Your task to perform on an android device: Open location settings Image 0: 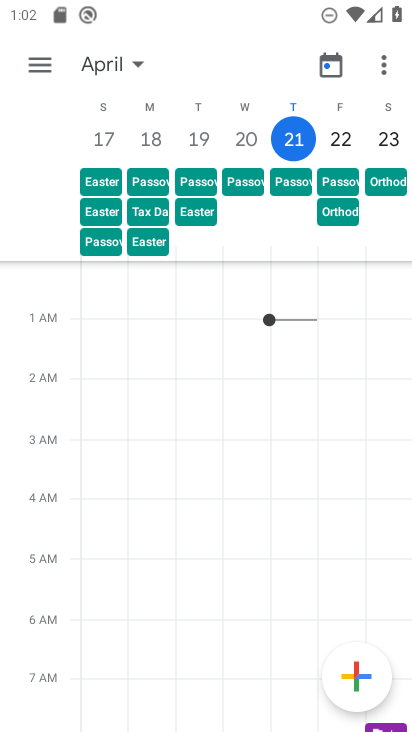
Step 0: press home button
Your task to perform on an android device: Open location settings Image 1: 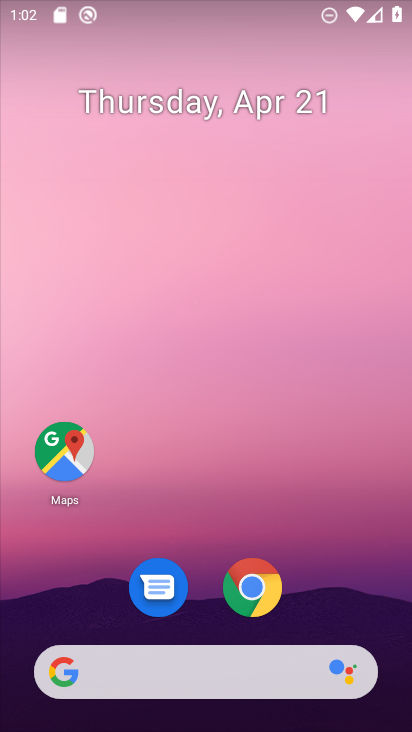
Step 1: drag from (313, 549) to (270, 157)
Your task to perform on an android device: Open location settings Image 2: 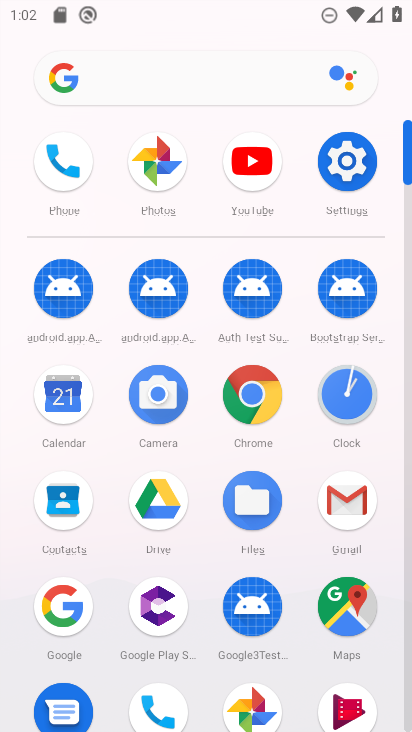
Step 2: click (350, 162)
Your task to perform on an android device: Open location settings Image 3: 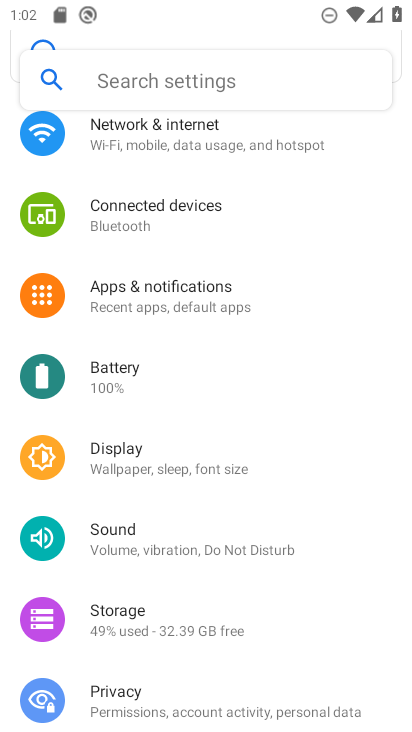
Step 3: drag from (239, 558) to (229, 295)
Your task to perform on an android device: Open location settings Image 4: 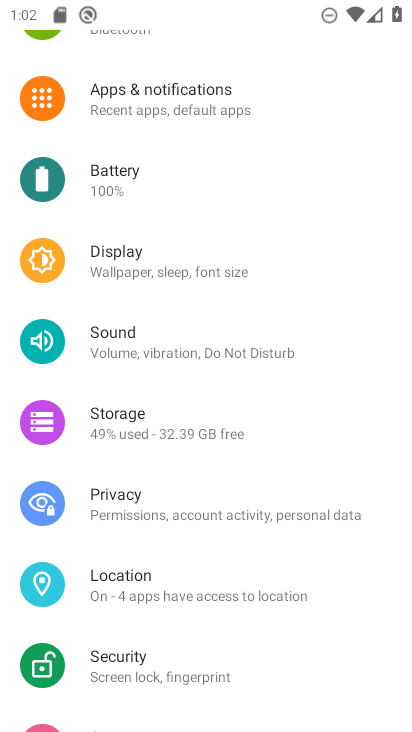
Step 4: click (126, 575)
Your task to perform on an android device: Open location settings Image 5: 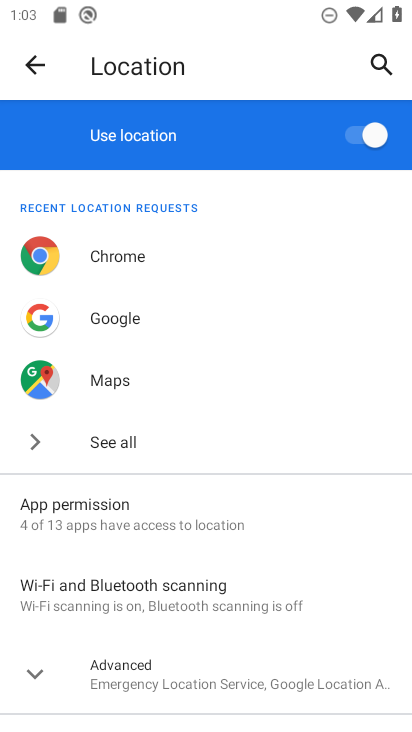
Step 5: task complete